Your task to perform on an android device: toggle priority inbox in the gmail app Image 0: 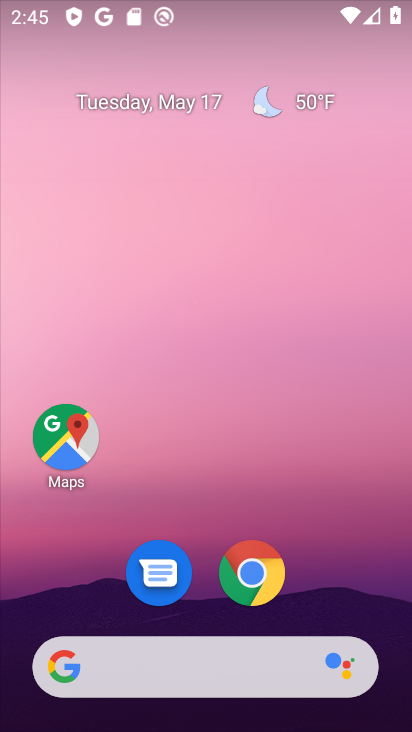
Step 0: drag from (368, 545) to (311, 112)
Your task to perform on an android device: toggle priority inbox in the gmail app Image 1: 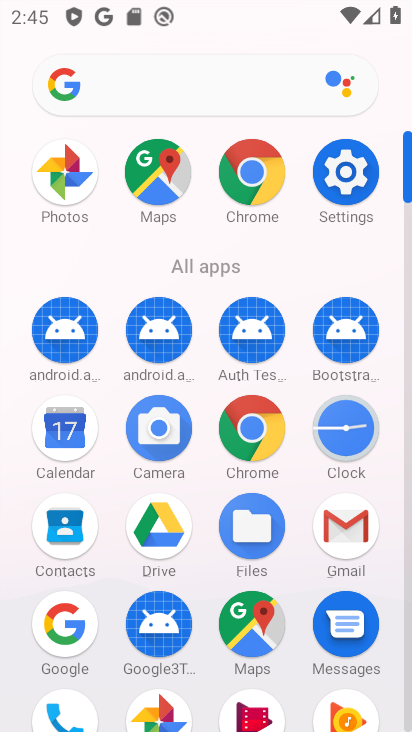
Step 1: click (379, 538)
Your task to perform on an android device: toggle priority inbox in the gmail app Image 2: 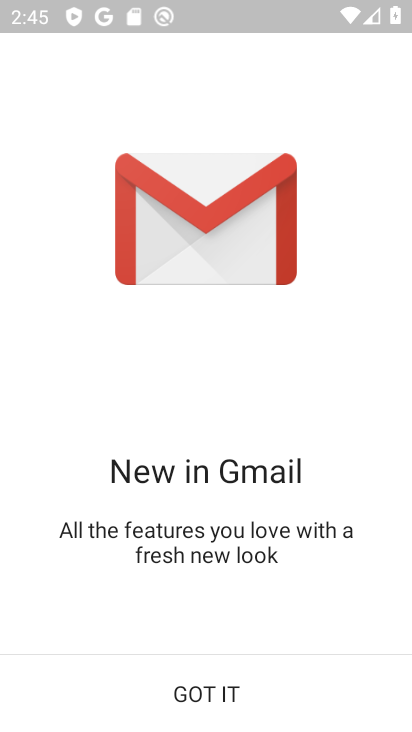
Step 2: click (159, 694)
Your task to perform on an android device: toggle priority inbox in the gmail app Image 3: 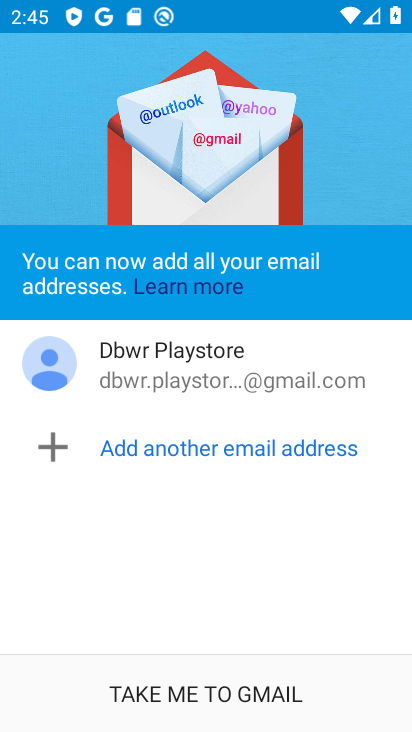
Step 3: click (185, 679)
Your task to perform on an android device: toggle priority inbox in the gmail app Image 4: 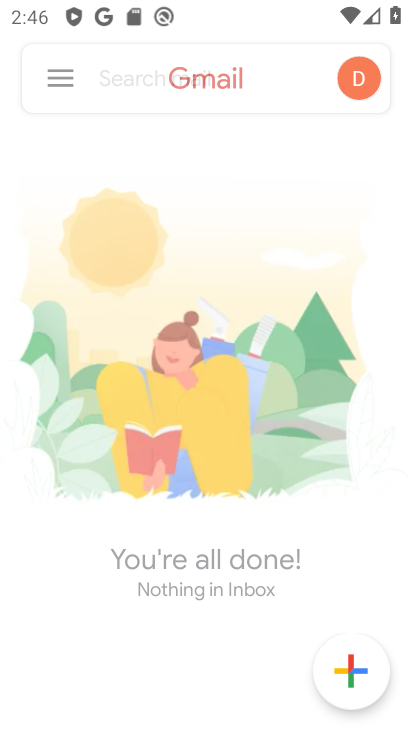
Step 4: click (62, 75)
Your task to perform on an android device: toggle priority inbox in the gmail app Image 5: 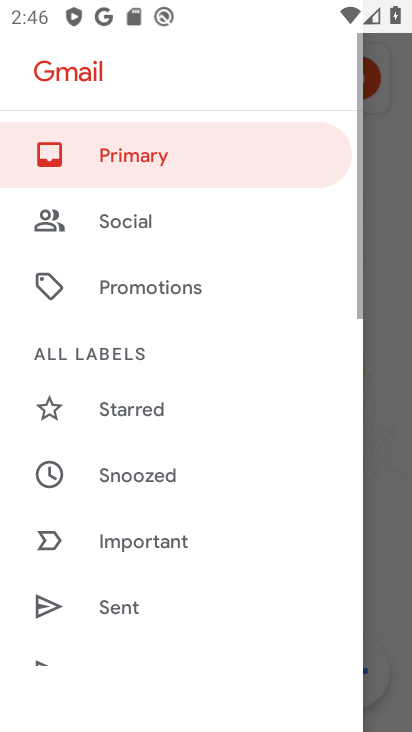
Step 5: drag from (153, 536) to (328, 102)
Your task to perform on an android device: toggle priority inbox in the gmail app Image 6: 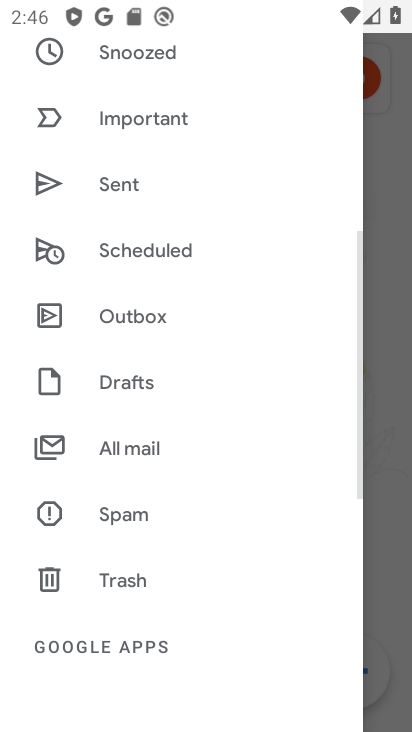
Step 6: drag from (169, 486) to (285, 190)
Your task to perform on an android device: toggle priority inbox in the gmail app Image 7: 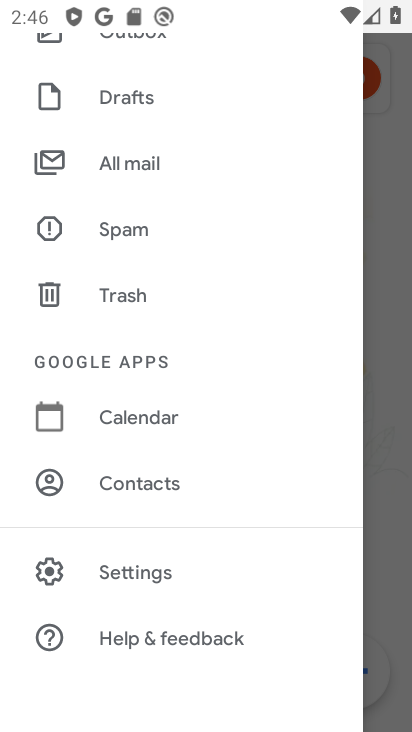
Step 7: click (150, 555)
Your task to perform on an android device: toggle priority inbox in the gmail app Image 8: 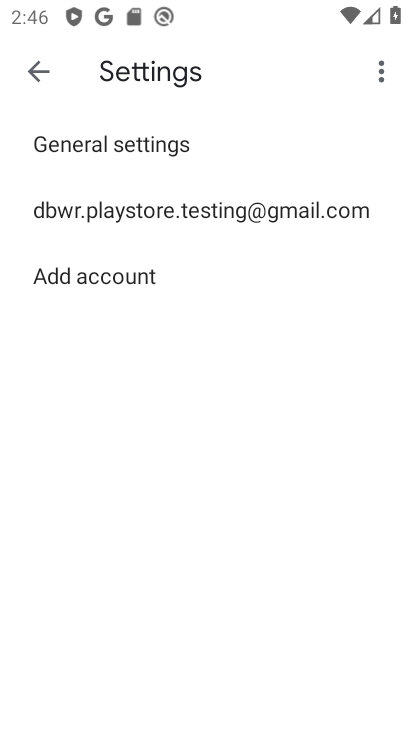
Step 8: click (233, 202)
Your task to perform on an android device: toggle priority inbox in the gmail app Image 9: 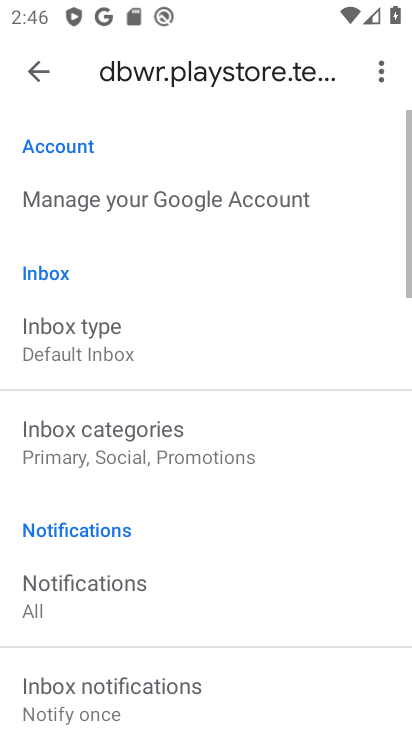
Step 9: click (93, 313)
Your task to perform on an android device: toggle priority inbox in the gmail app Image 10: 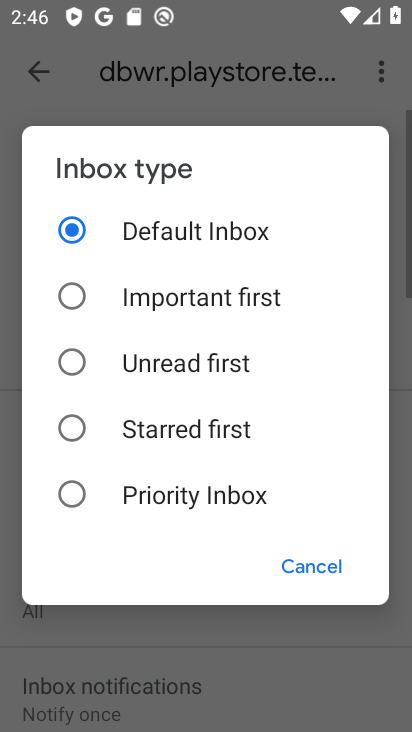
Step 10: click (176, 519)
Your task to perform on an android device: toggle priority inbox in the gmail app Image 11: 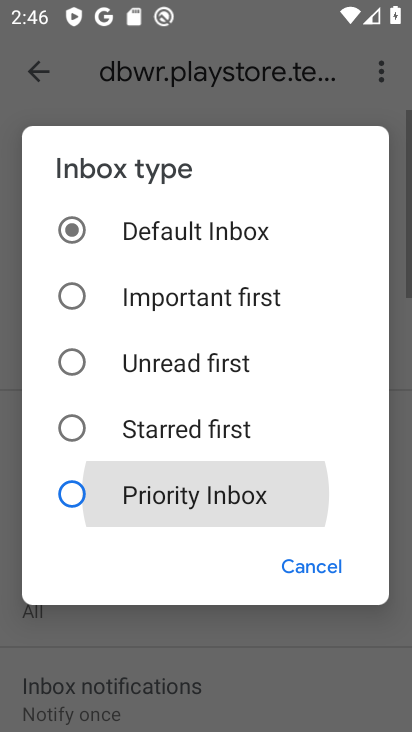
Step 11: click (176, 510)
Your task to perform on an android device: toggle priority inbox in the gmail app Image 12: 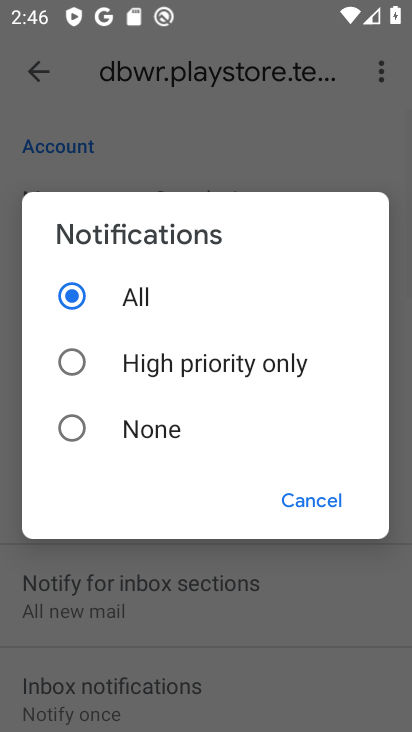
Step 12: click (288, 483)
Your task to perform on an android device: toggle priority inbox in the gmail app Image 13: 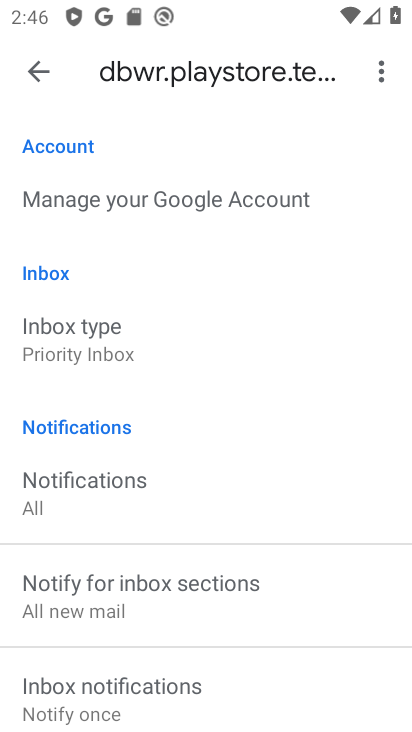
Step 13: task complete